Your task to perform on an android device: toggle airplane mode Image 0: 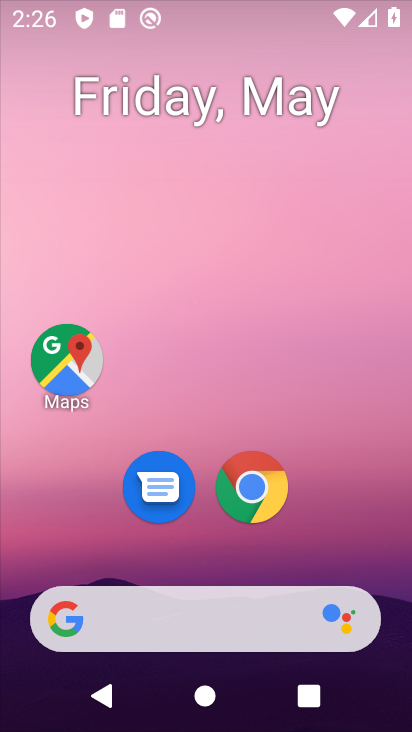
Step 0: click (249, 482)
Your task to perform on an android device: toggle airplane mode Image 1: 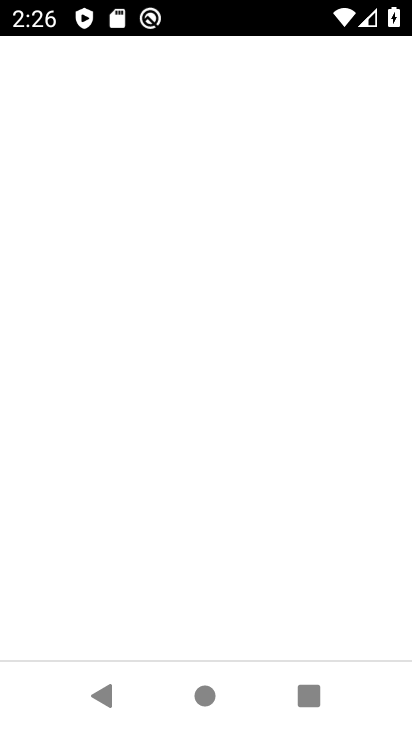
Step 1: press back button
Your task to perform on an android device: toggle airplane mode Image 2: 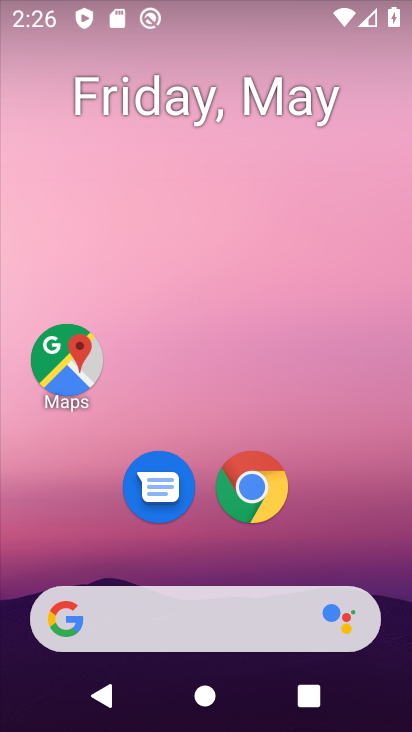
Step 2: drag from (353, 8) to (246, 504)
Your task to perform on an android device: toggle airplane mode Image 3: 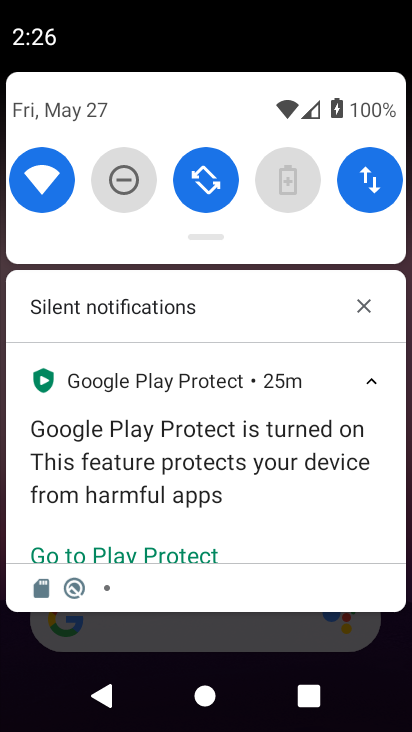
Step 3: drag from (210, 223) to (166, 553)
Your task to perform on an android device: toggle airplane mode Image 4: 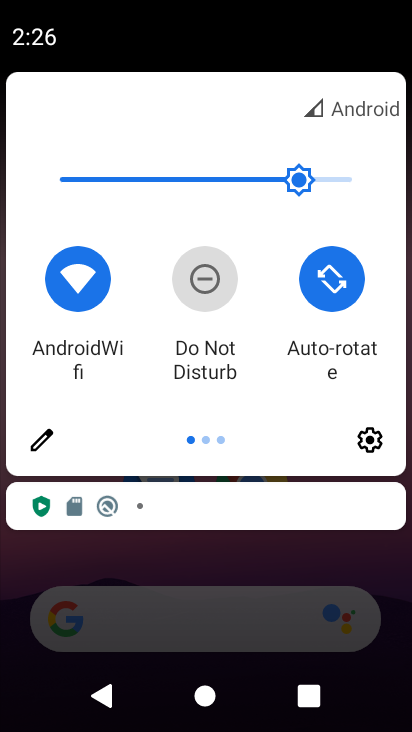
Step 4: drag from (343, 286) to (0, 273)
Your task to perform on an android device: toggle airplane mode Image 5: 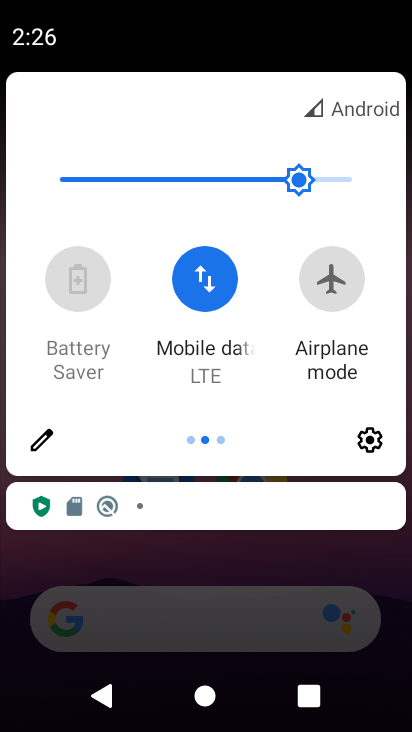
Step 5: click (331, 273)
Your task to perform on an android device: toggle airplane mode Image 6: 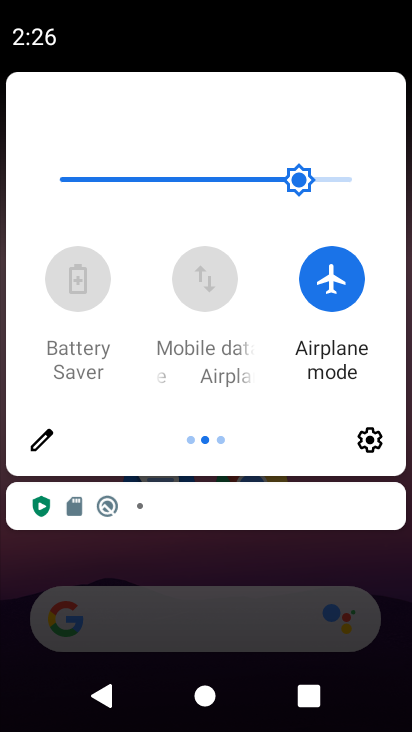
Step 6: task complete